Your task to perform on an android device: install app "McDonald's" Image 0: 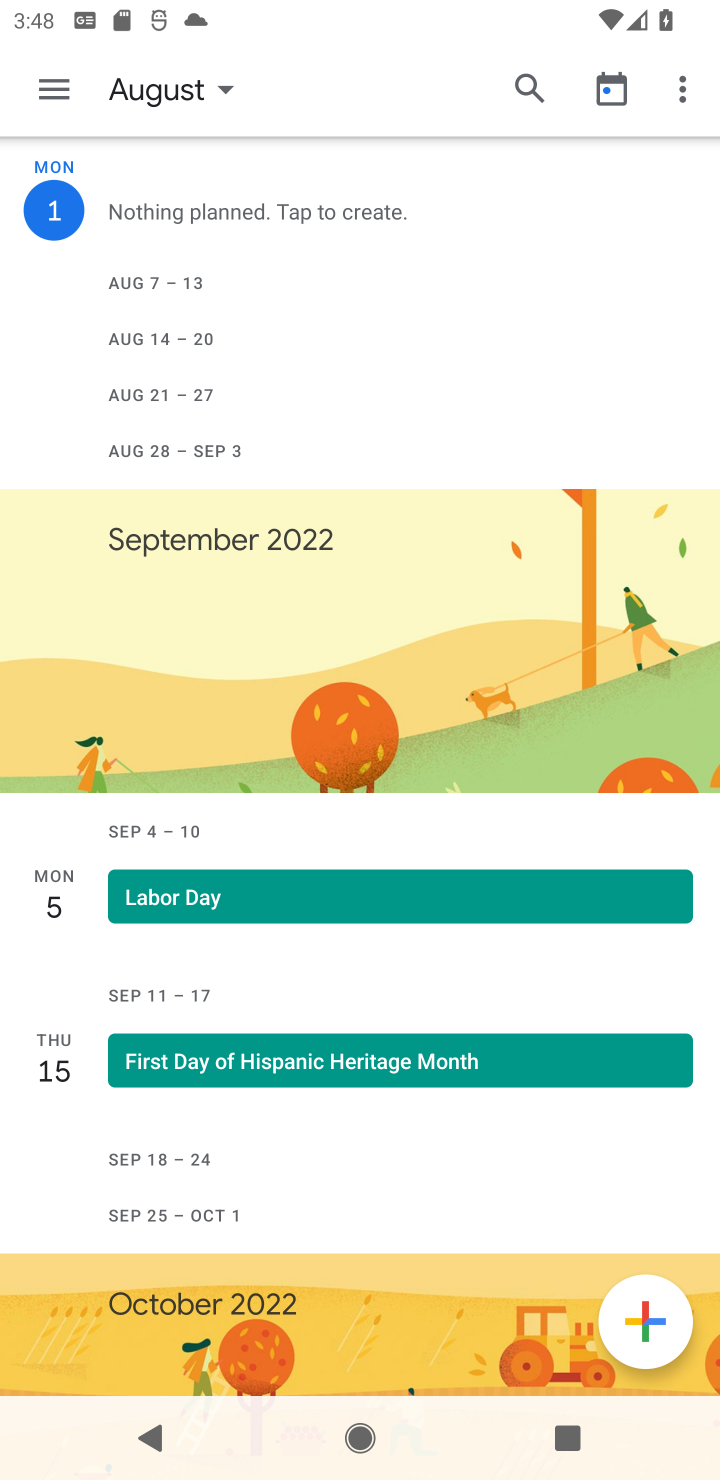
Step 0: press home button
Your task to perform on an android device: install app "McDonald's" Image 1: 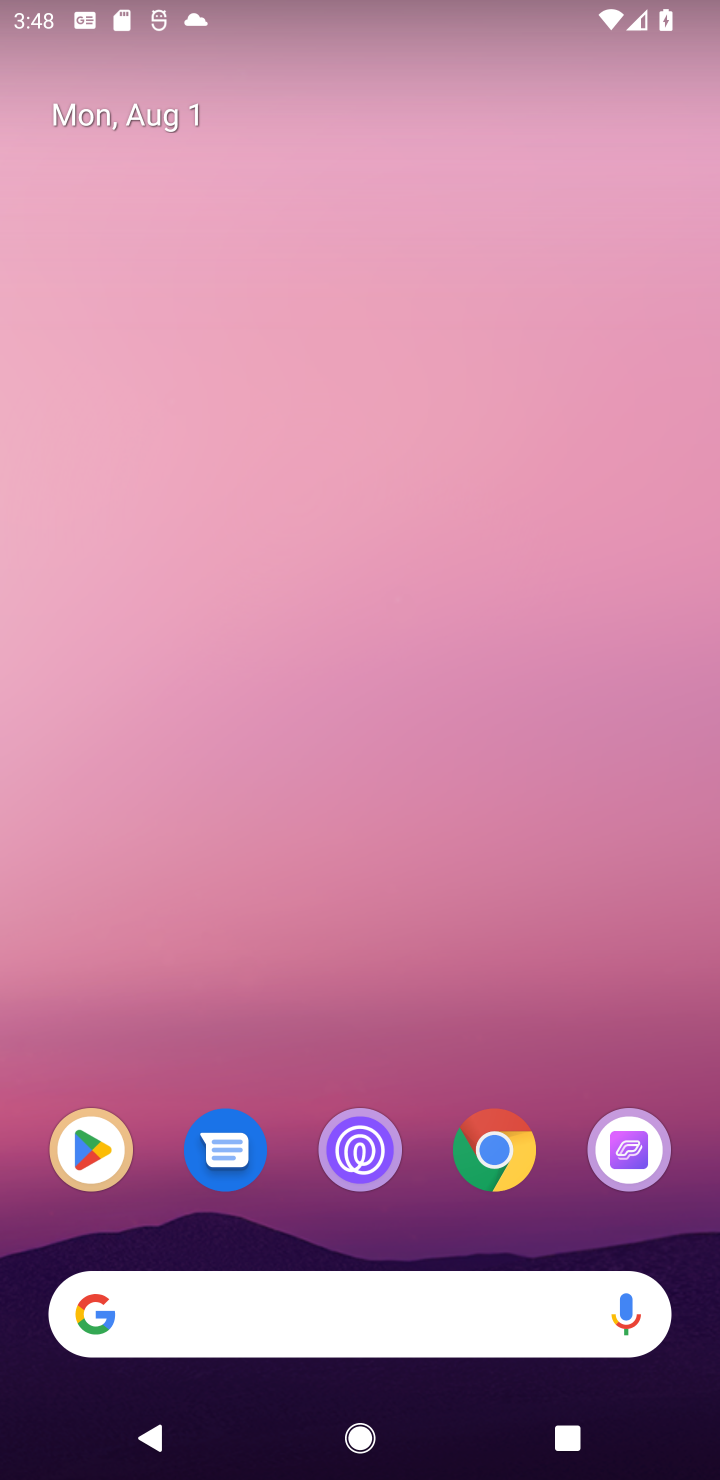
Step 1: drag from (394, 1221) to (455, 102)
Your task to perform on an android device: install app "McDonald's" Image 2: 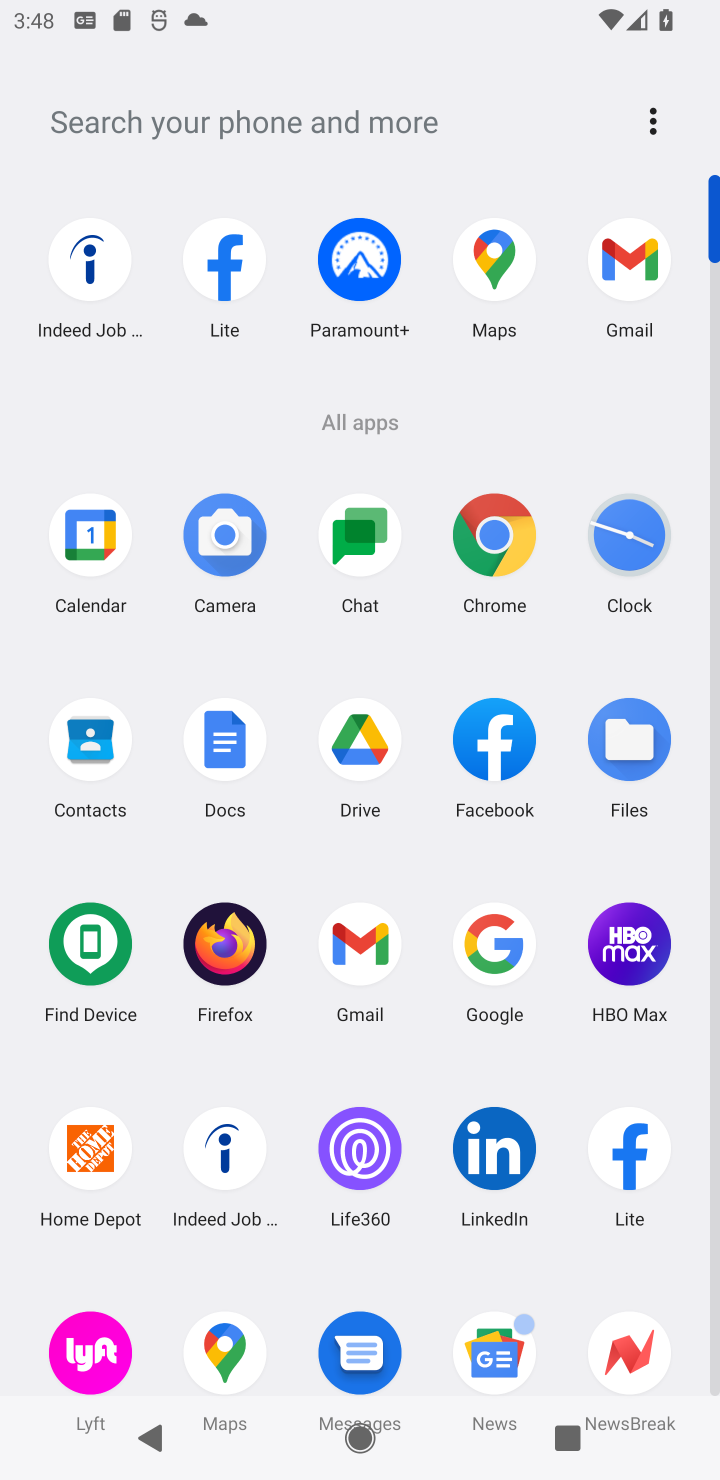
Step 2: click (239, 124)
Your task to perform on an android device: install app "McDonald's" Image 3: 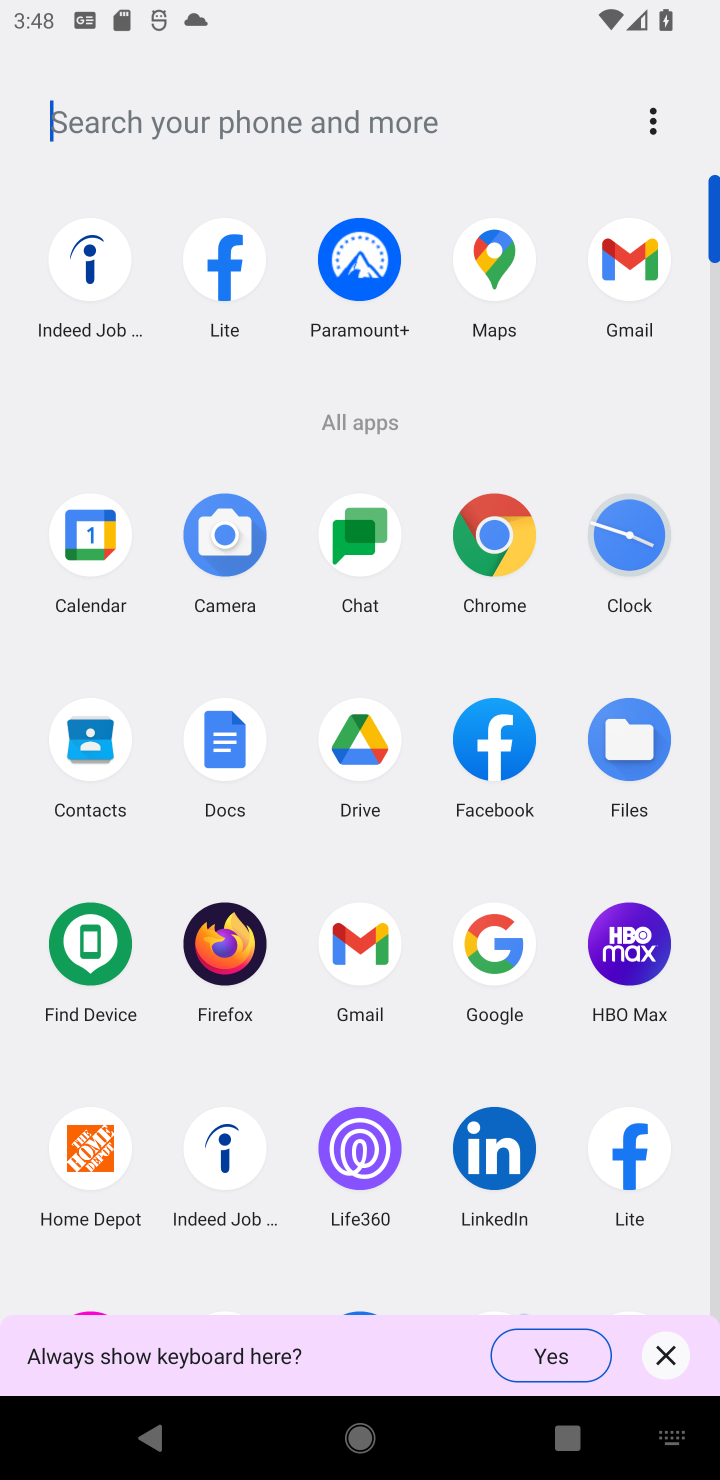
Step 3: press home button
Your task to perform on an android device: install app "McDonald's" Image 4: 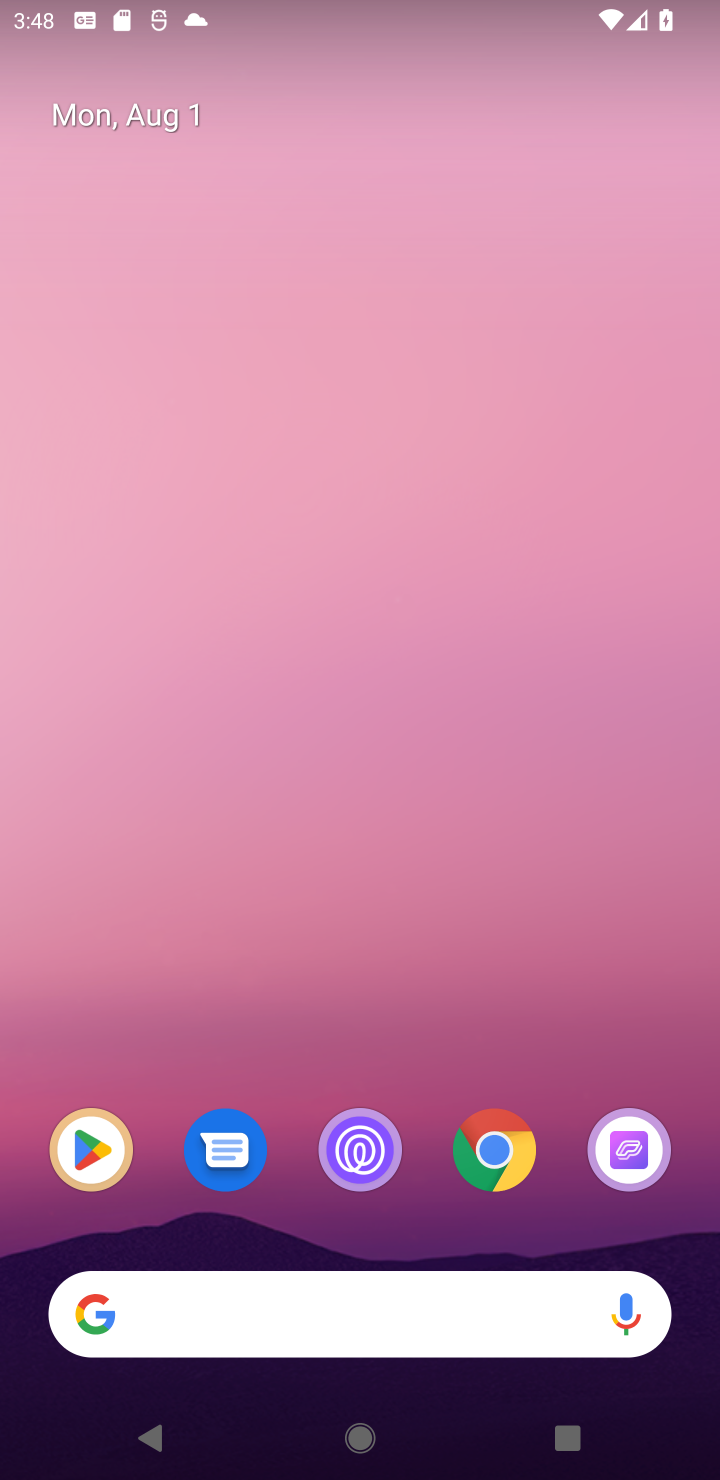
Step 4: press home button
Your task to perform on an android device: install app "McDonald's" Image 5: 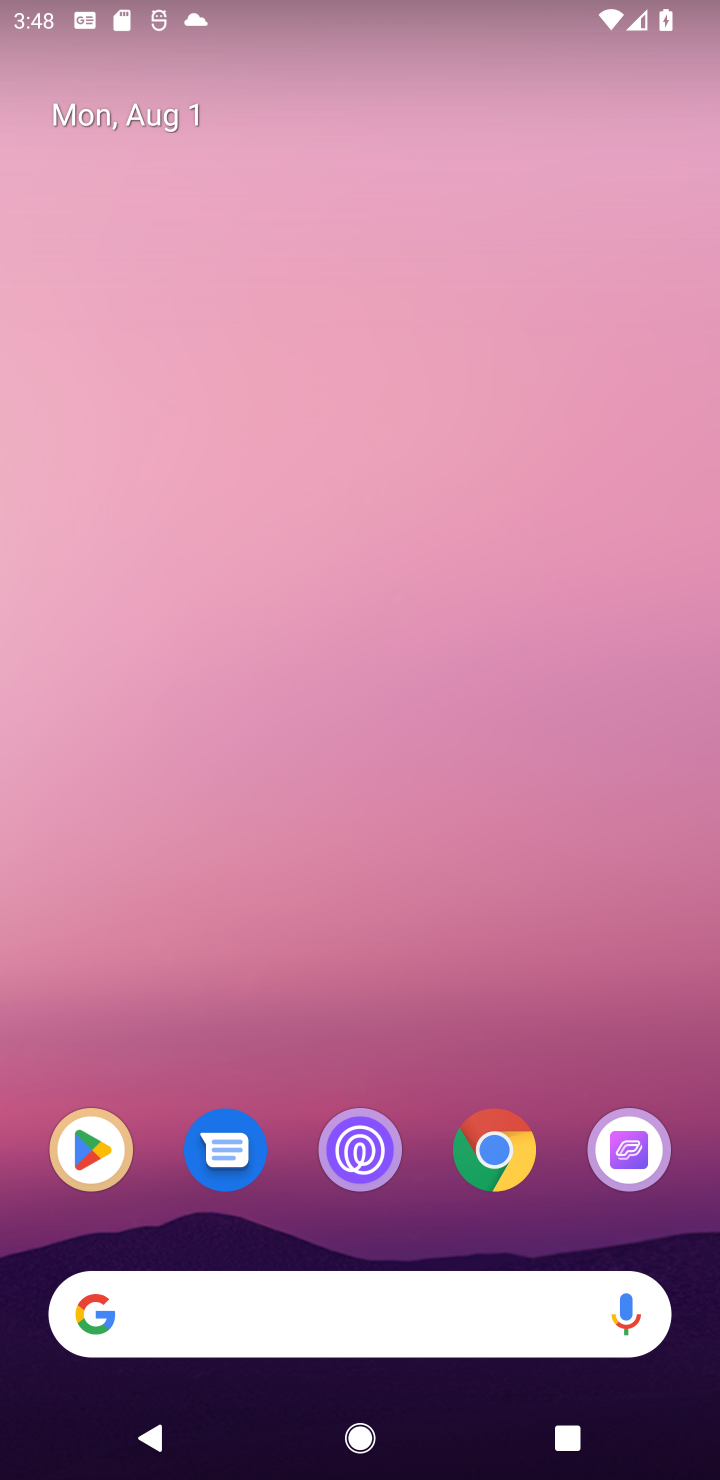
Step 5: click (94, 1147)
Your task to perform on an android device: install app "McDonald's" Image 6: 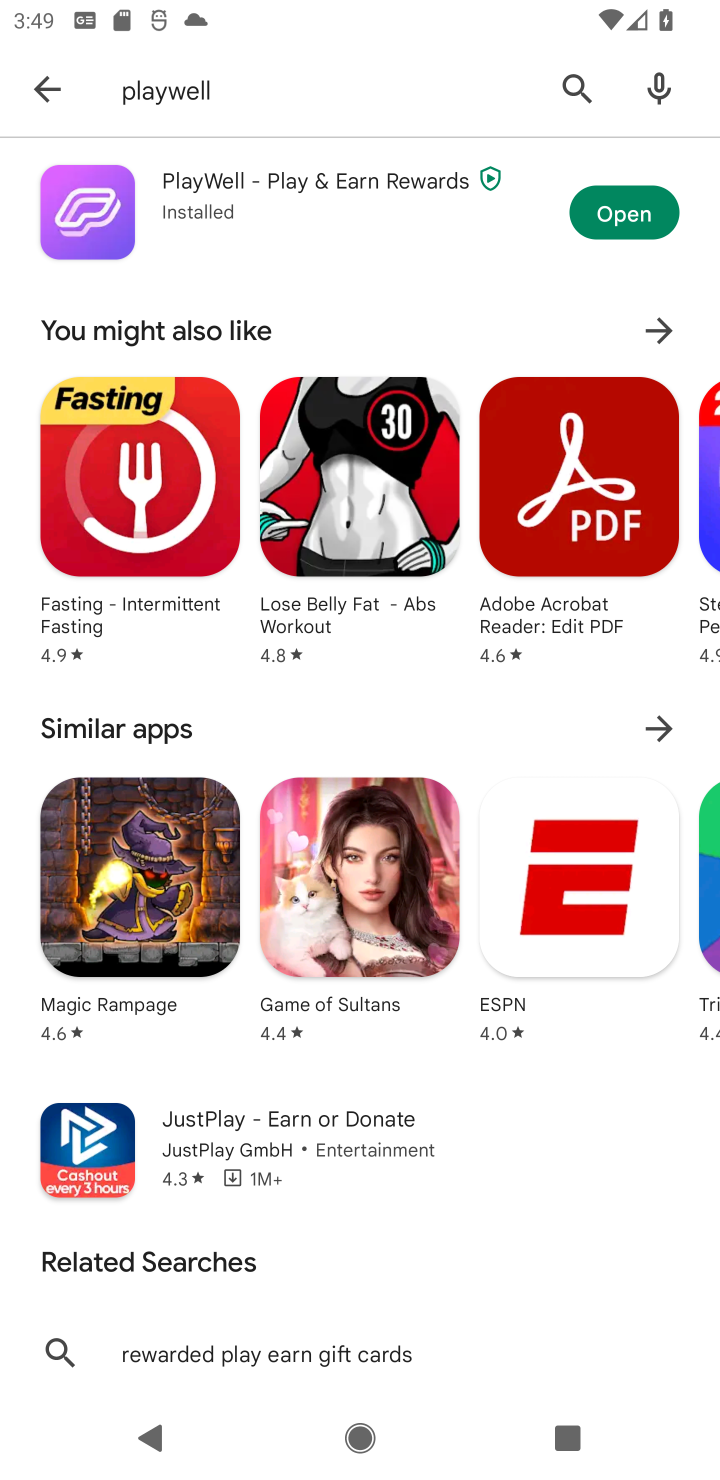
Step 6: click (579, 94)
Your task to perform on an android device: install app "McDonald's" Image 7: 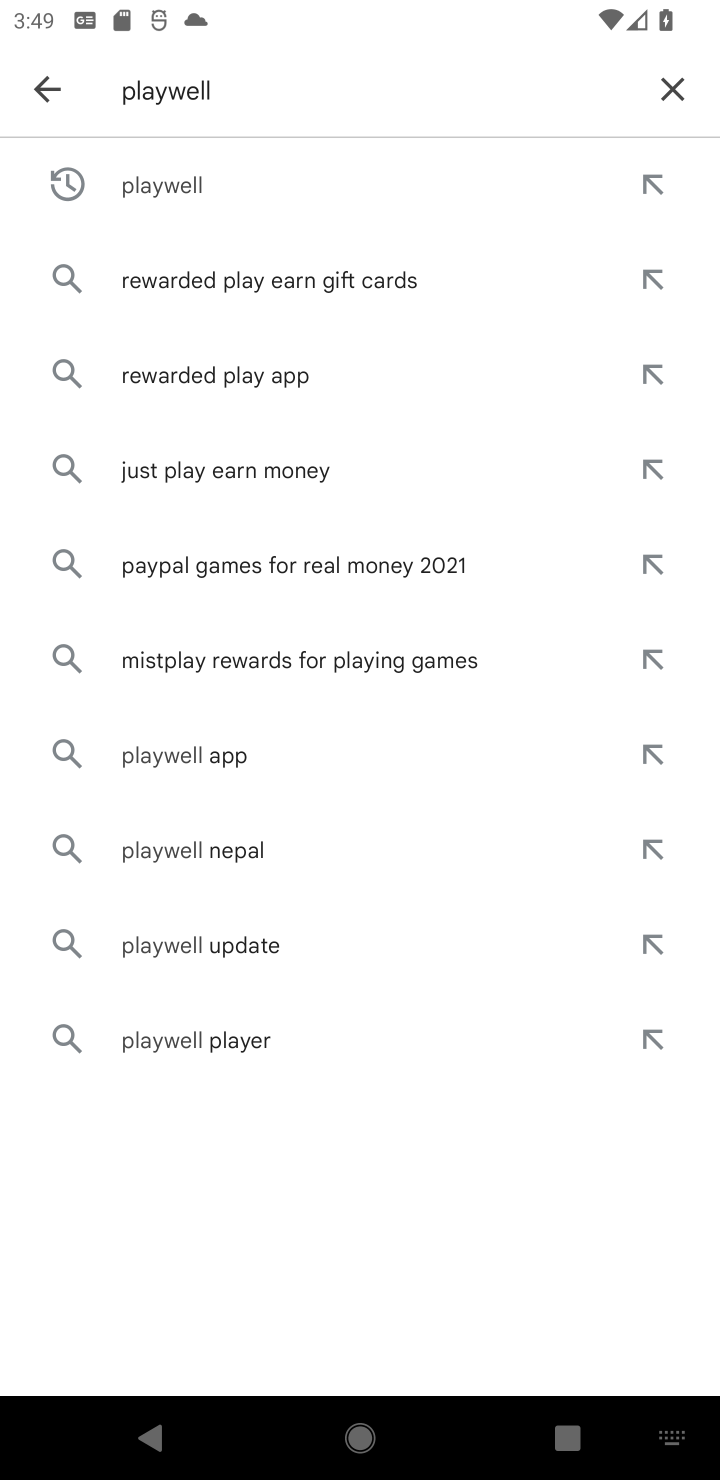
Step 7: click (667, 83)
Your task to perform on an android device: install app "McDonald's" Image 8: 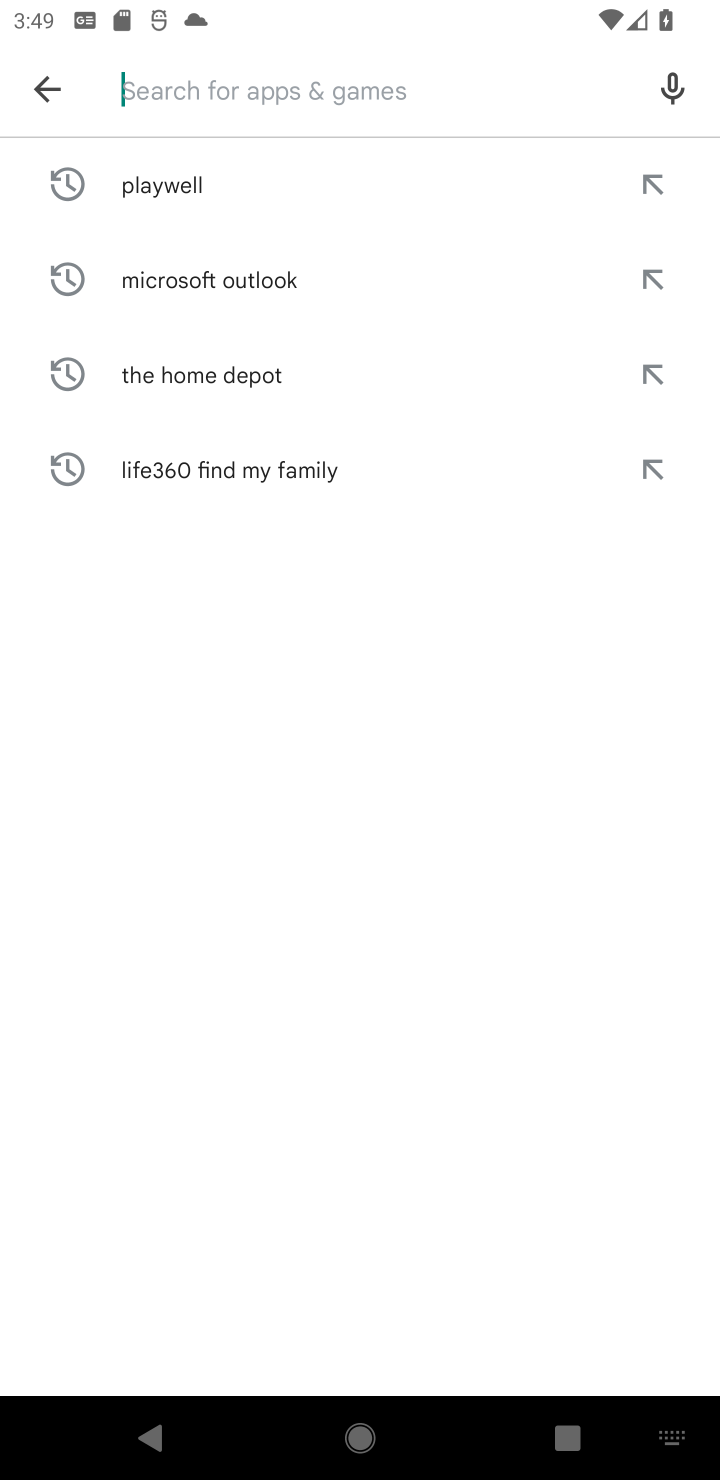
Step 8: type "mcdoland"
Your task to perform on an android device: install app "McDonald's" Image 9: 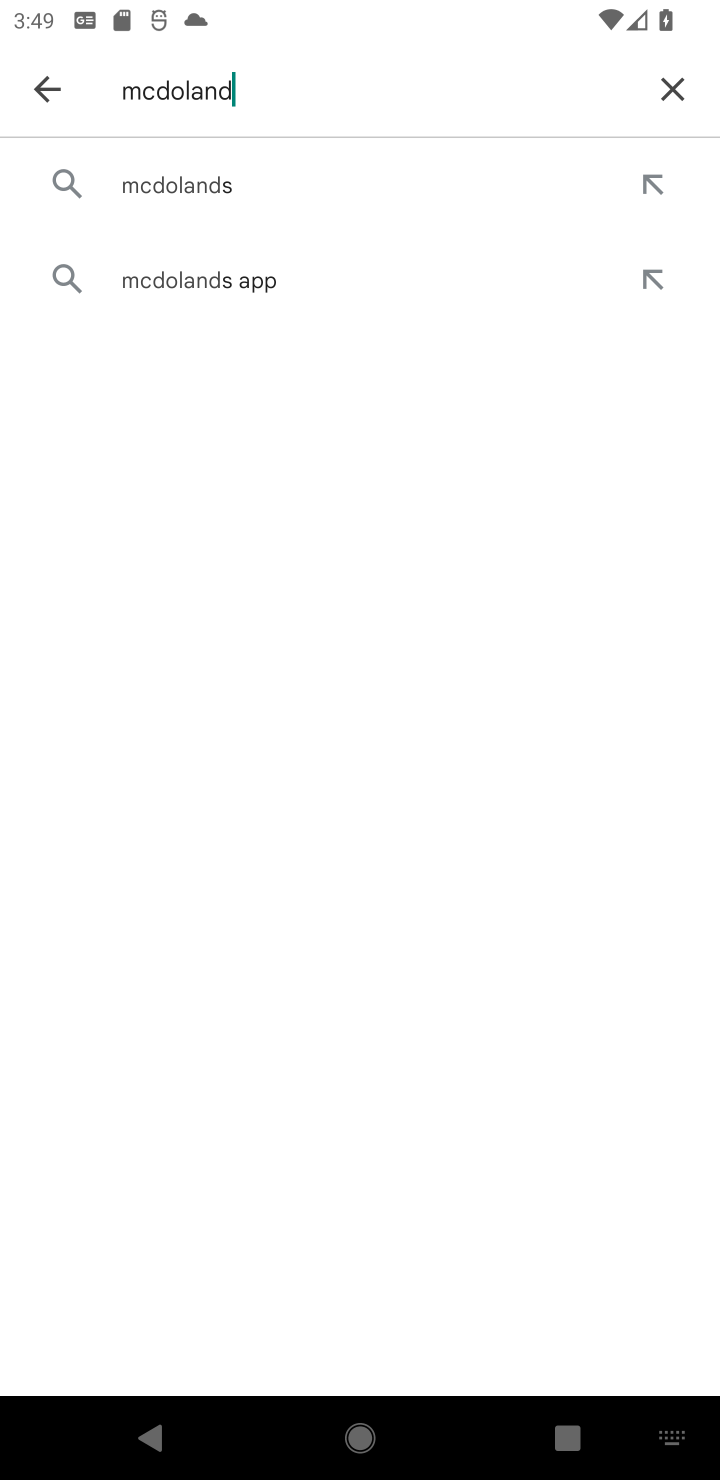
Step 9: click (442, 180)
Your task to perform on an android device: install app "McDonald's" Image 10: 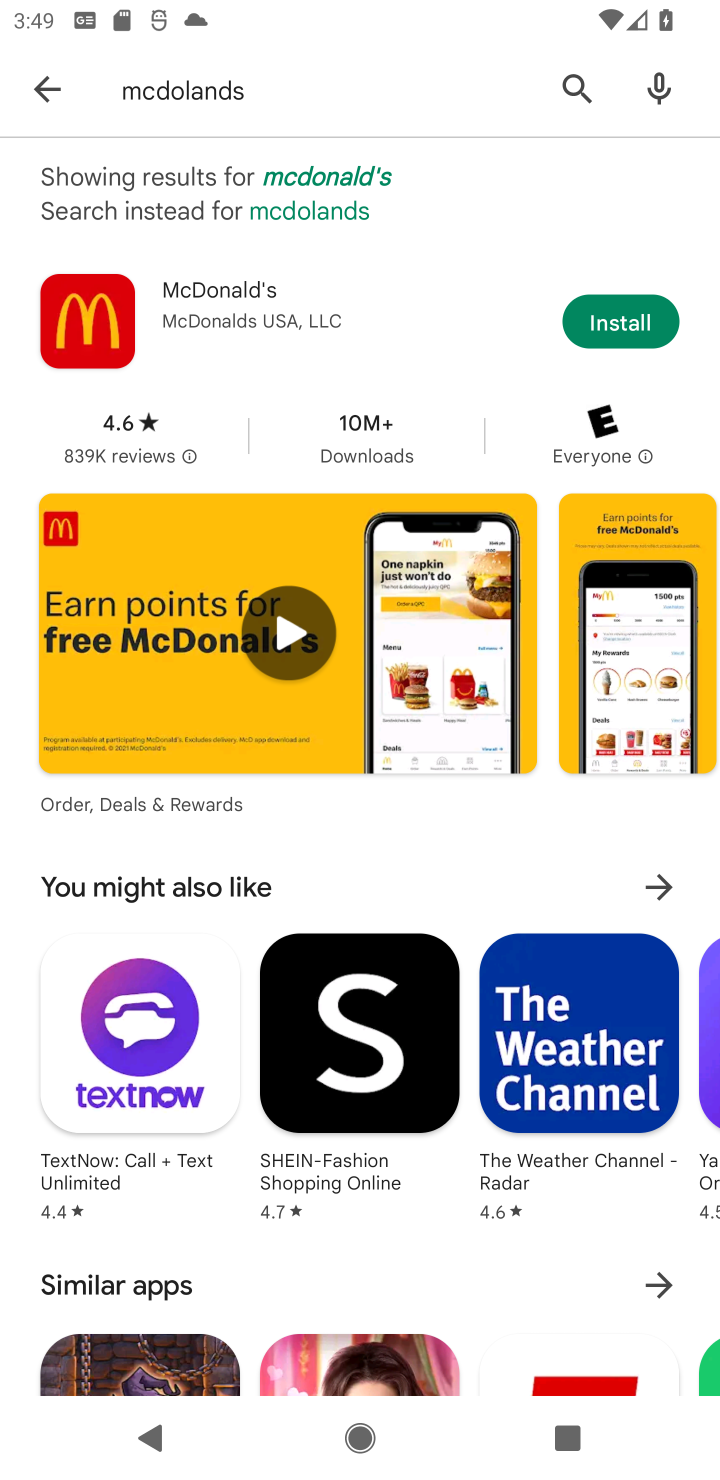
Step 10: click (583, 322)
Your task to perform on an android device: install app "McDonald's" Image 11: 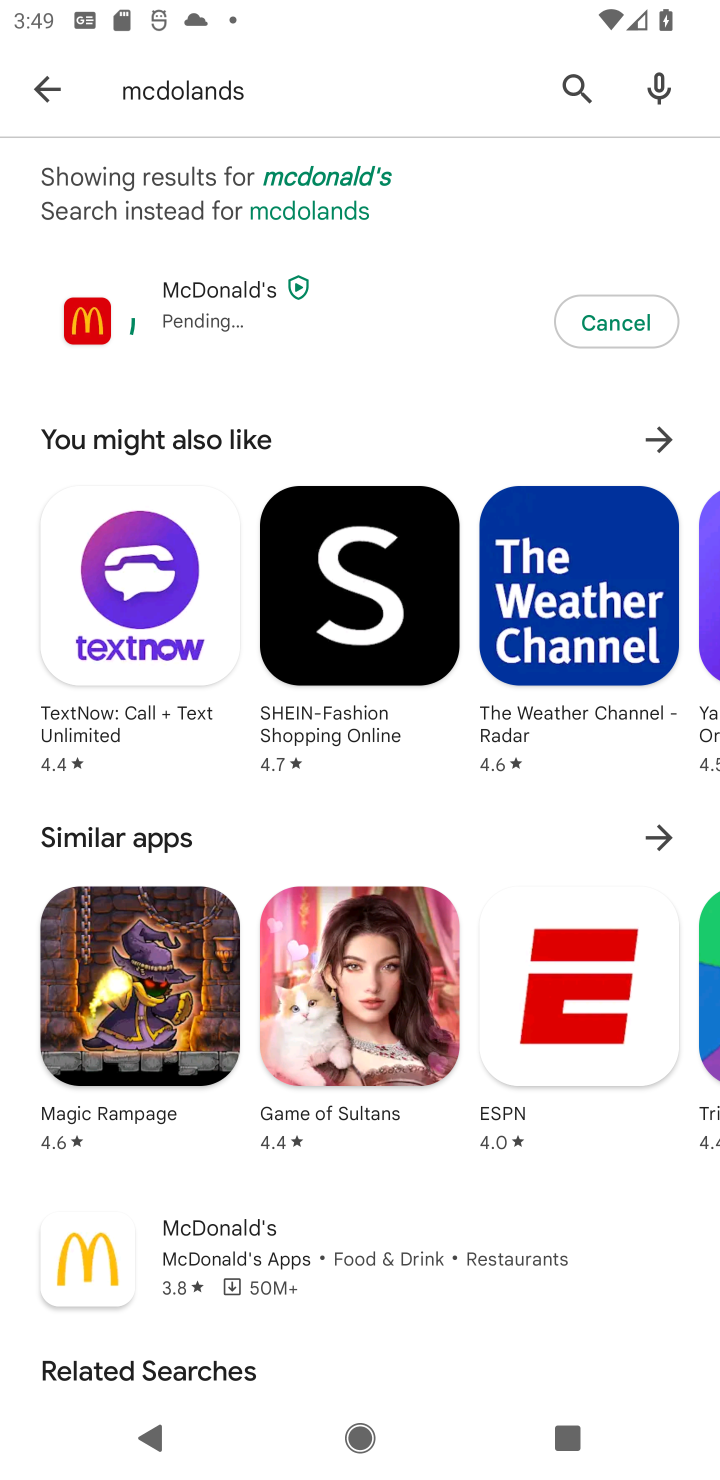
Step 11: task complete